Your task to perform on an android device: uninstall "LinkedIn" Image 0: 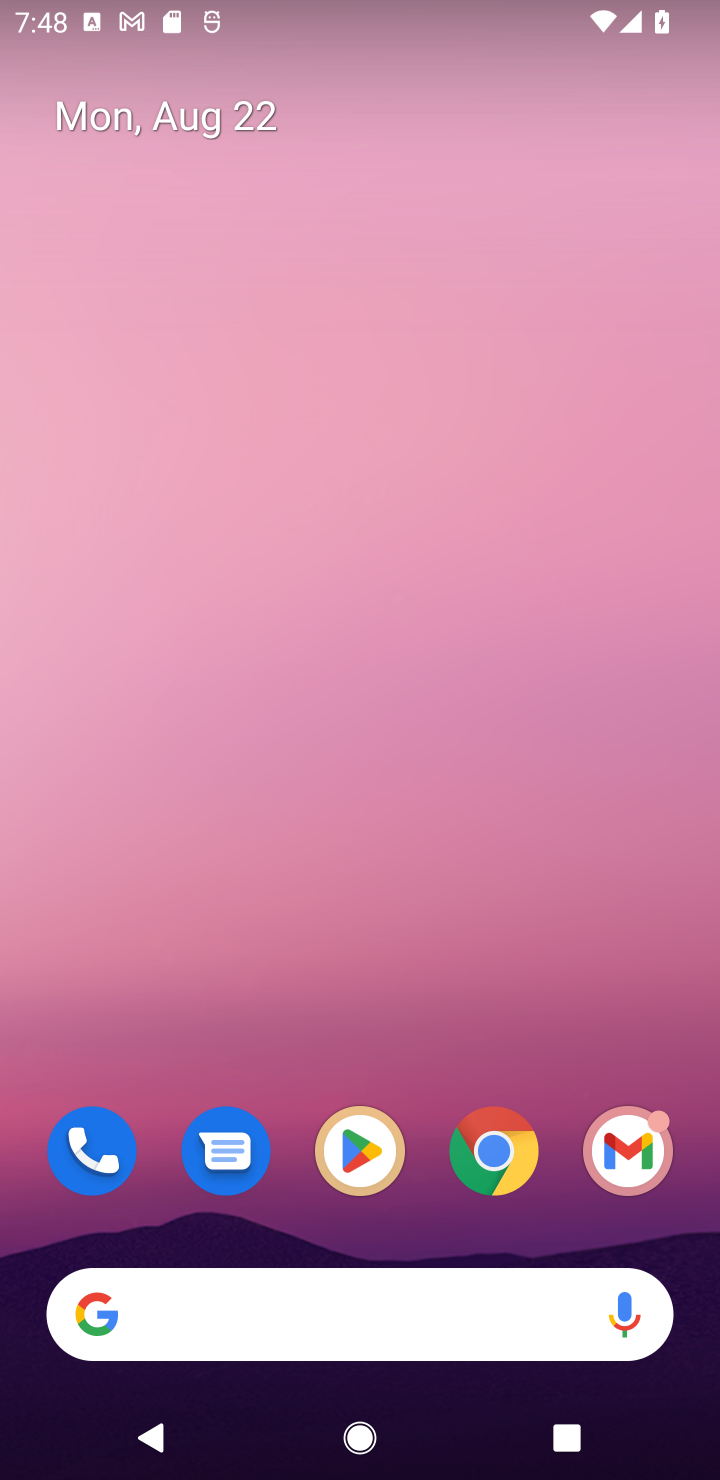
Step 0: press home button
Your task to perform on an android device: uninstall "LinkedIn" Image 1: 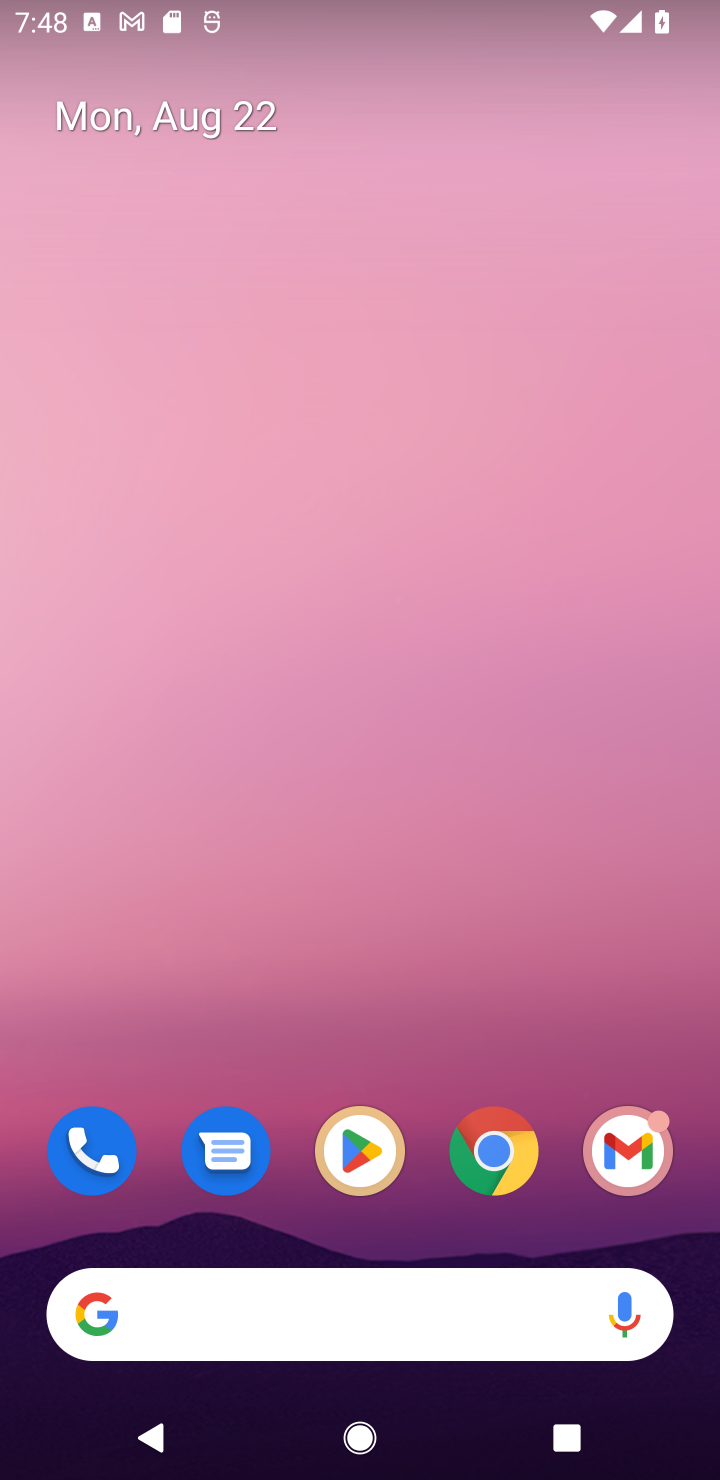
Step 1: click (358, 1151)
Your task to perform on an android device: uninstall "LinkedIn" Image 2: 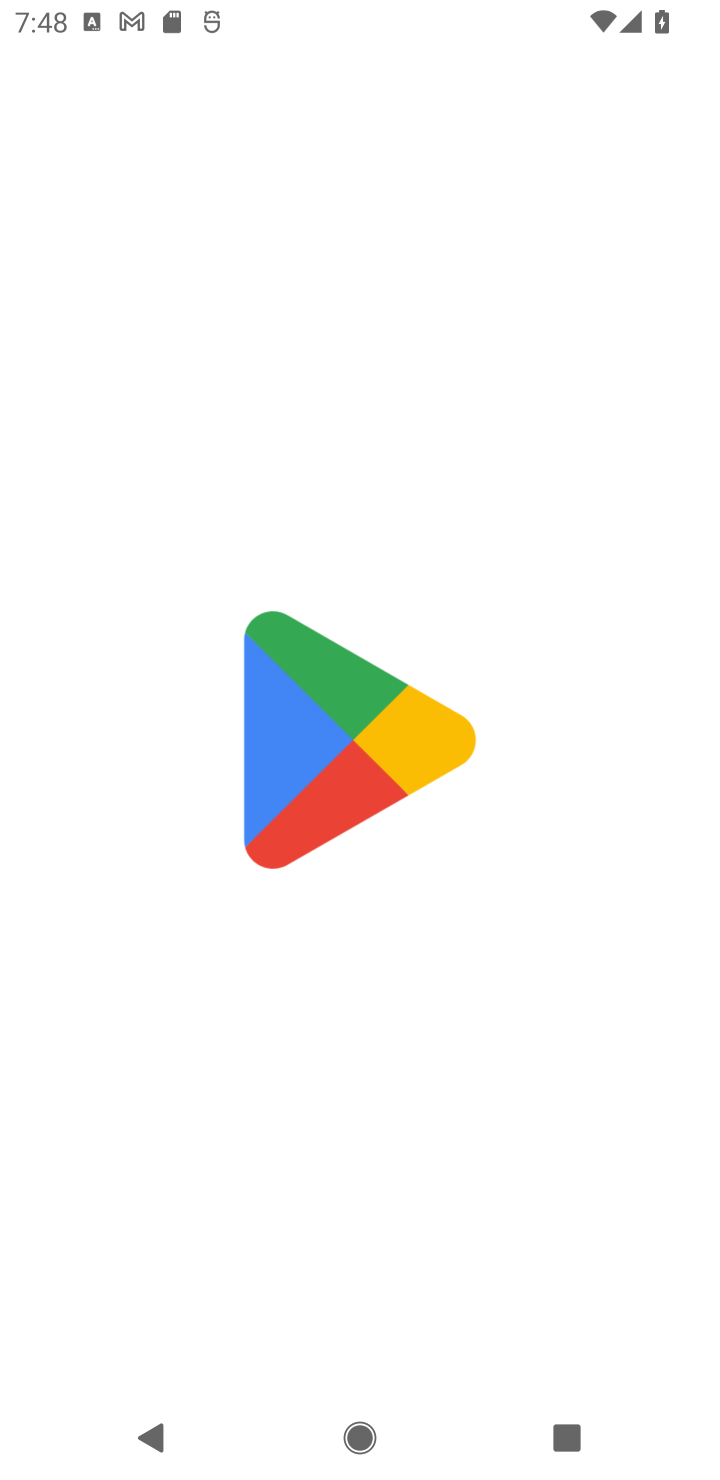
Step 2: click (358, 1155)
Your task to perform on an android device: uninstall "LinkedIn" Image 3: 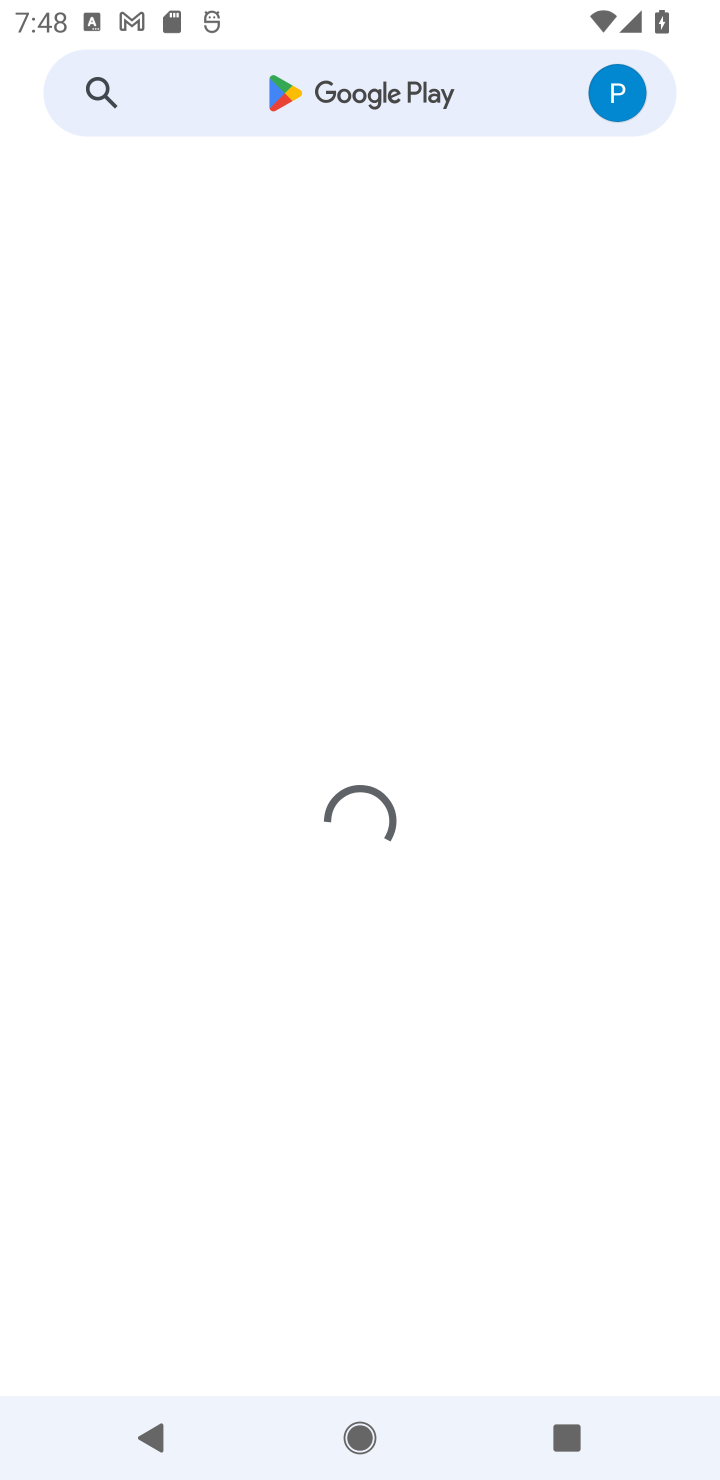
Step 3: click (420, 85)
Your task to perform on an android device: uninstall "LinkedIn" Image 4: 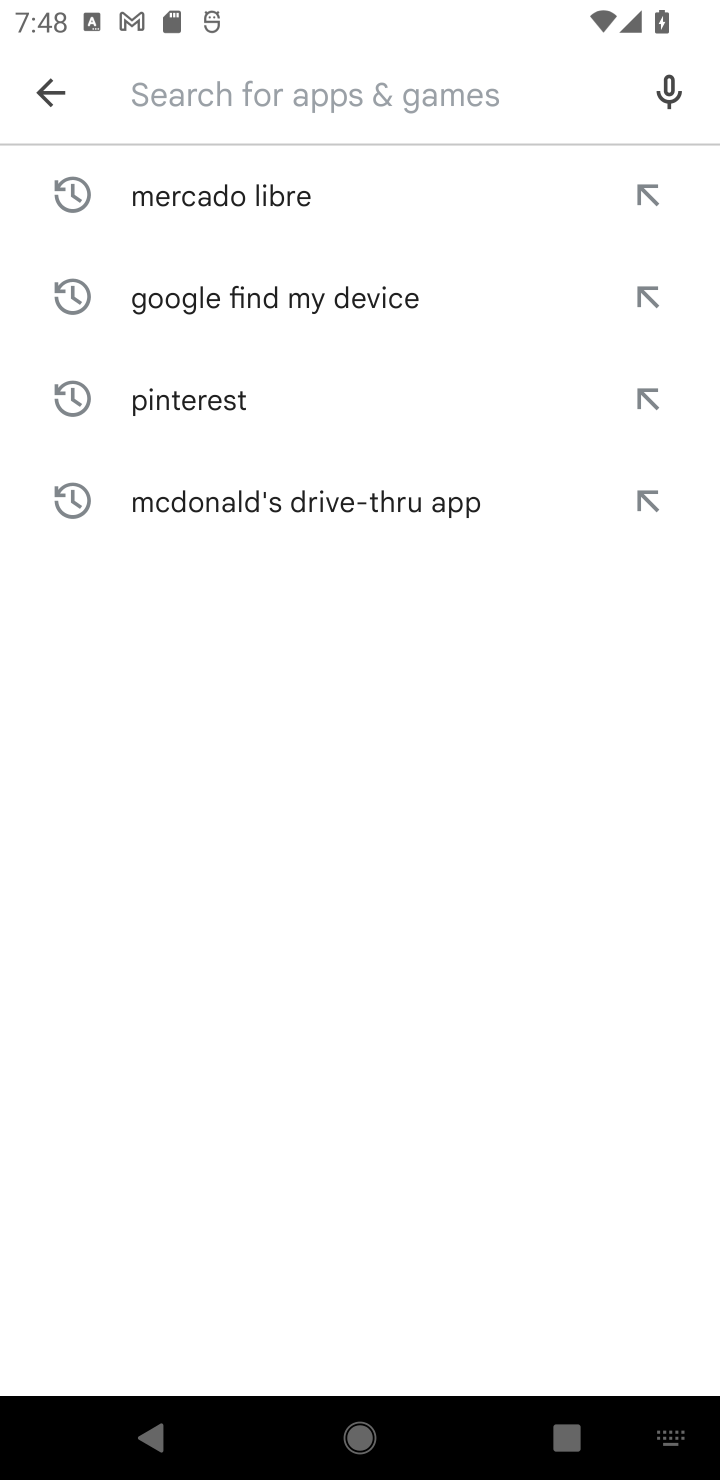
Step 4: type "LinkedIn"
Your task to perform on an android device: uninstall "LinkedIn" Image 5: 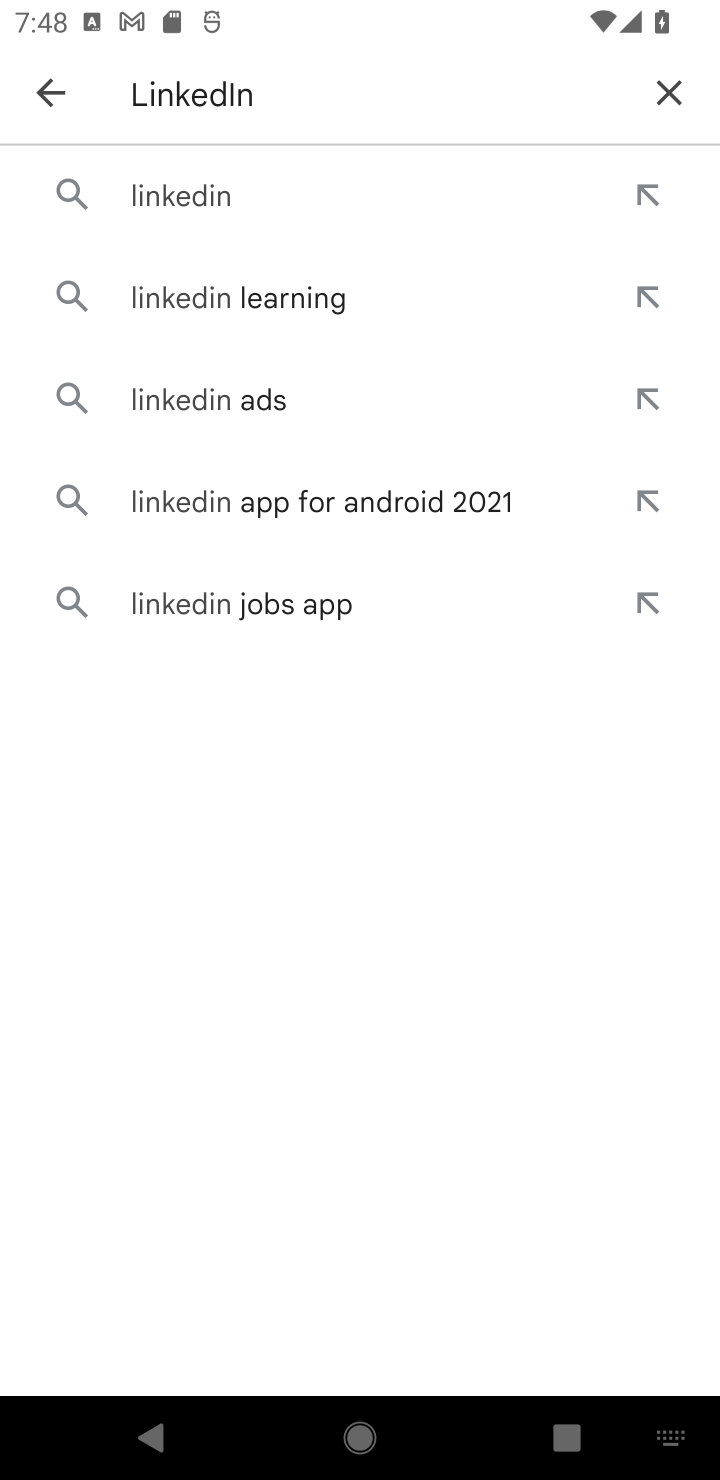
Step 5: click (227, 166)
Your task to perform on an android device: uninstall "LinkedIn" Image 6: 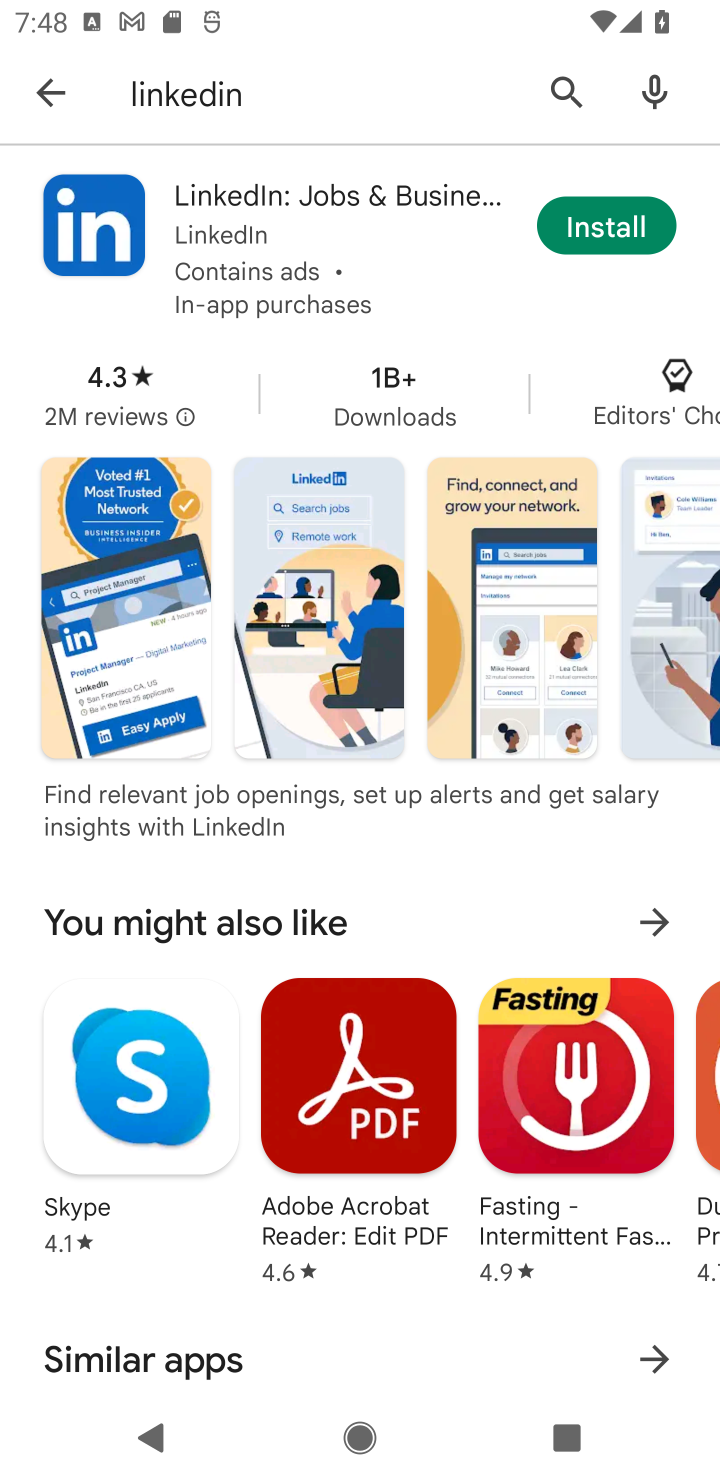
Step 6: task complete